Your task to perform on an android device: turn vacation reply on in the gmail app Image 0: 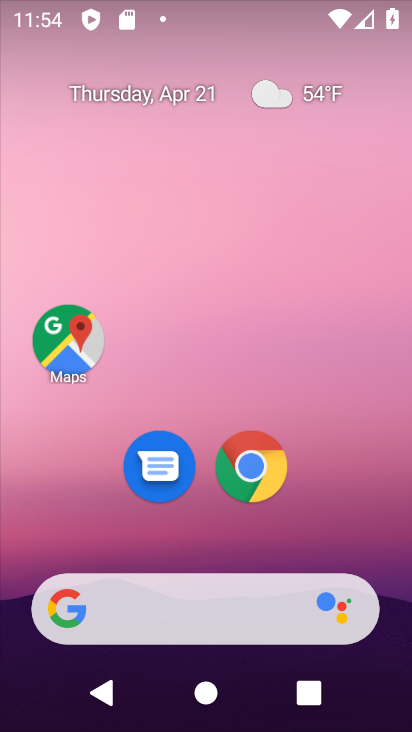
Step 0: drag from (321, 392) to (325, 106)
Your task to perform on an android device: turn vacation reply on in the gmail app Image 1: 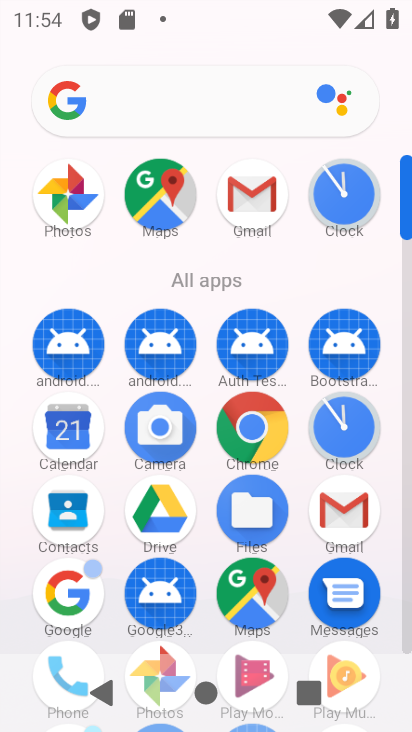
Step 1: click (335, 513)
Your task to perform on an android device: turn vacation reply on in the gmail app Image 2: 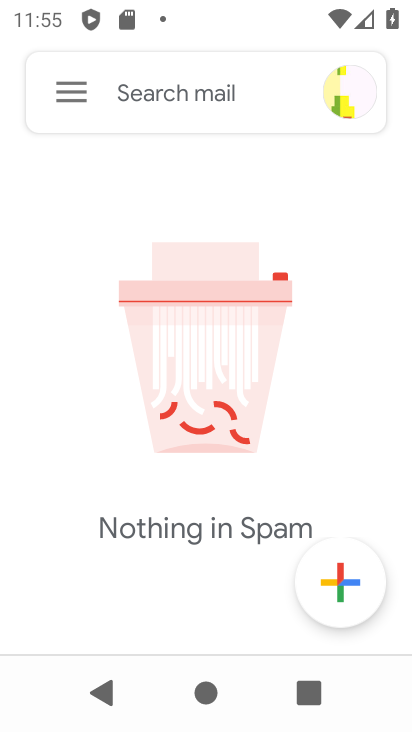
Step 2: click (68, 94)
Your task to perform on an android device: turn vacation reply on in the gmail app Image 3: 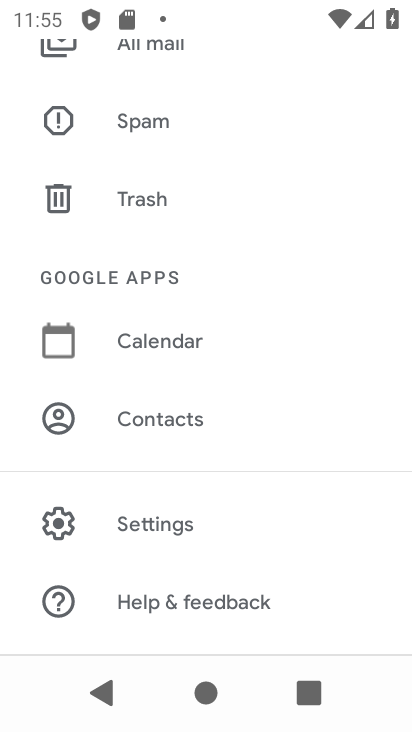
Step 3: click (137, 526)
Your task to perform on an android device: turn vacation reply on in the gmail app Image 4: 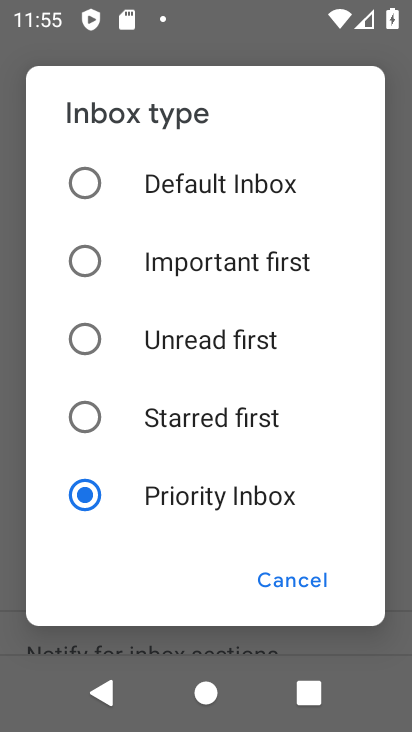
Step 4: press back button
Your task to perform on an android device: turn vacation reply on in the gmail app Image 5: 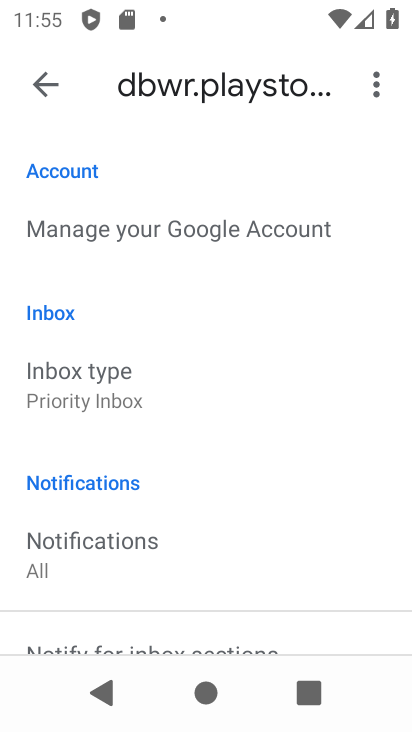
Step 5: drag from (165, 431) to (163, 168)
Your task to perform on an android device: turn vacation reply on in the gmail app Image 6: 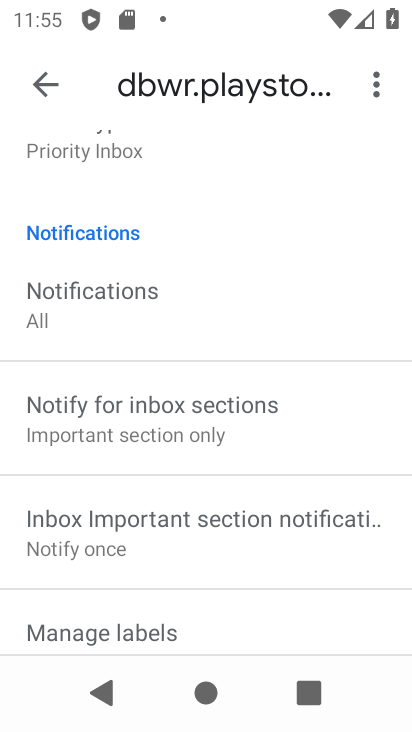
Step 6: drag from (147, 603) to (159, 140)
Your task to perform on an android device: turn vacation reply on in the gmail app Image 7: 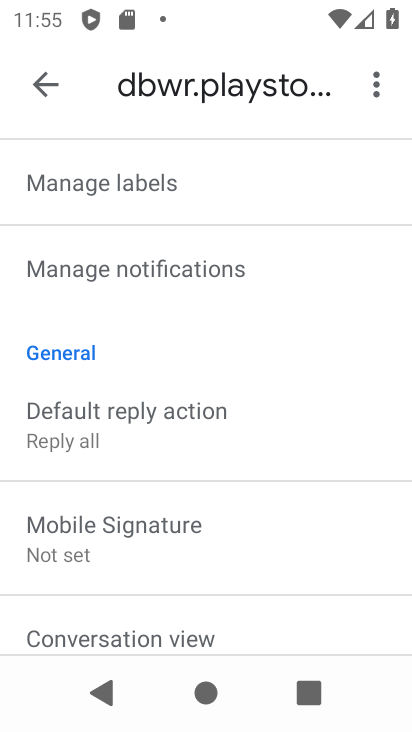
Step 7: drag from (162, 535) to (160, 287)
Your task to perform on an android device: turn vacation reply on in the gmail app Image 8: 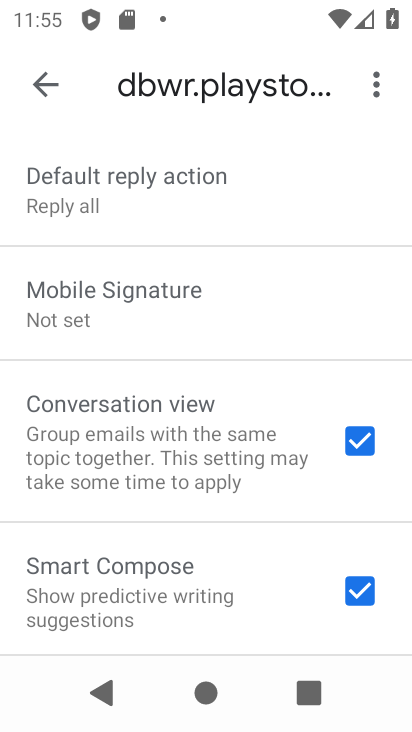
Step 8: drag from (165, 582) to (170, 123)
Your task to perform on an android device: turn vacation reply on in the gmail app Image 9: 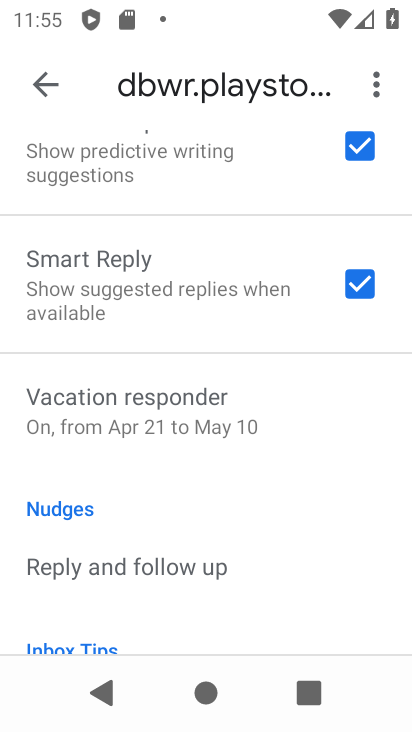
Step 9: click (138, 415)
Your task to perform on an android device: turn vacation reply on in the gmail app Image 10: 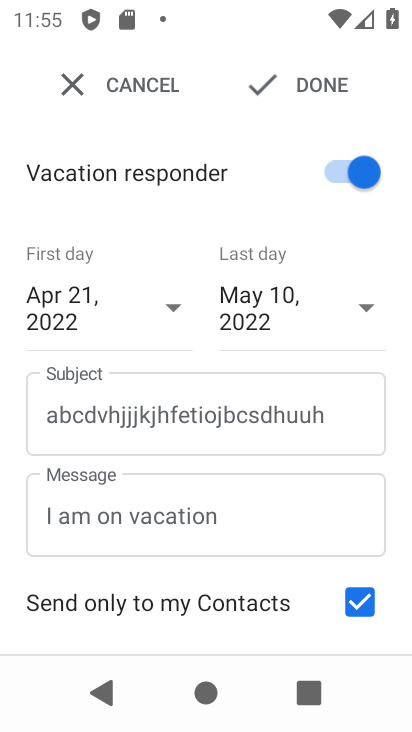
Step 10: task complete